Your task to perform on an android device: Go to battery settings Image 0: 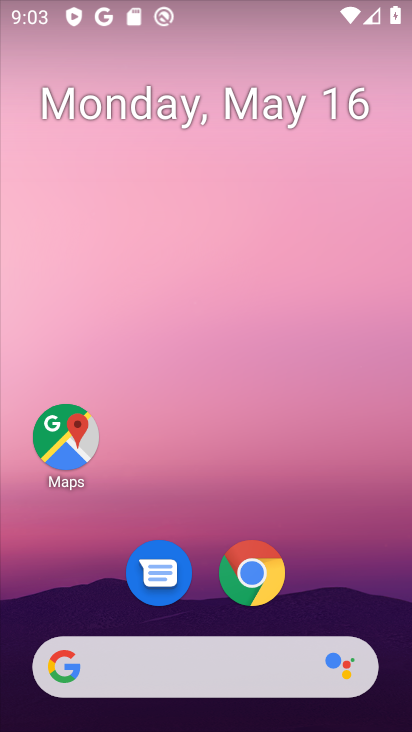
Step 0: drag from (320, 539) to (330, 176)
Your task to perform on an android device: Go to battery settings Image 1: 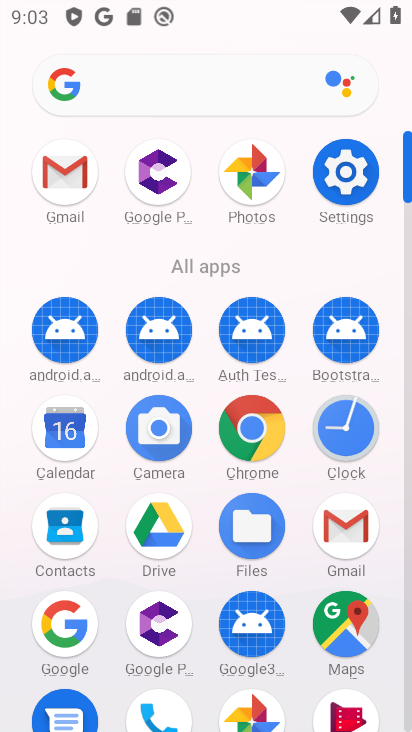
Step 1: click (322, 184)
Your task to perform on an android device: Go to battery settings Image 2: 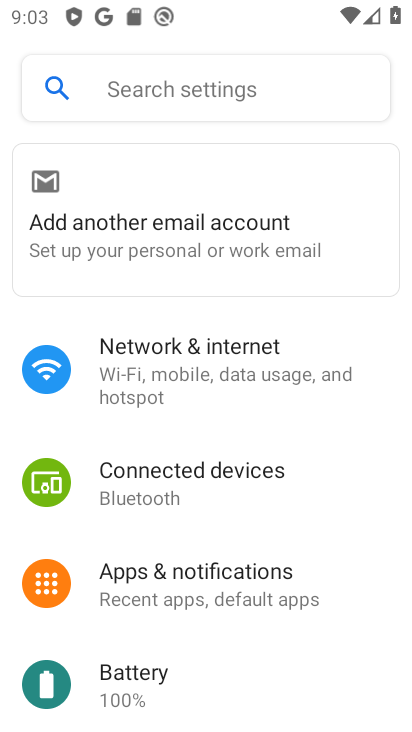
Step 2: drag from (283, 578) to (371, 120)
Your task to perform on an android device: Go to battery settings Image 3: 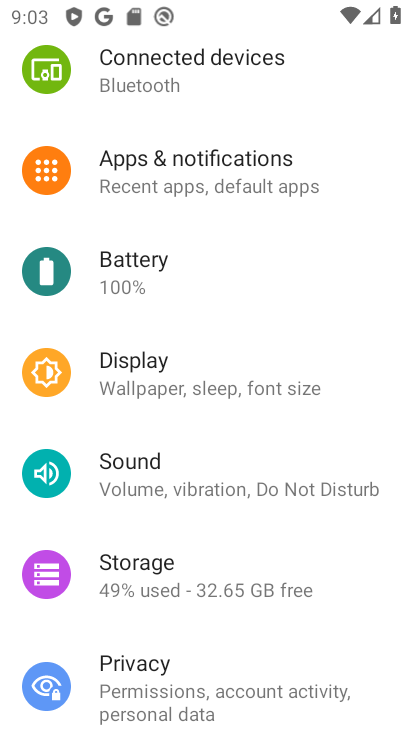
Step 3: click (175, 273)
Your task to perform on an android device: Go to battery settings Image 4: 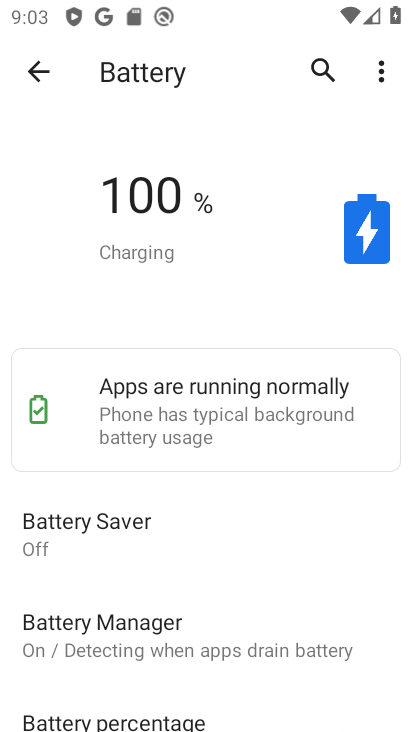
Step 4: task complete